Your task to perform on an android device: toggle data saver in the chrome app Image 0: 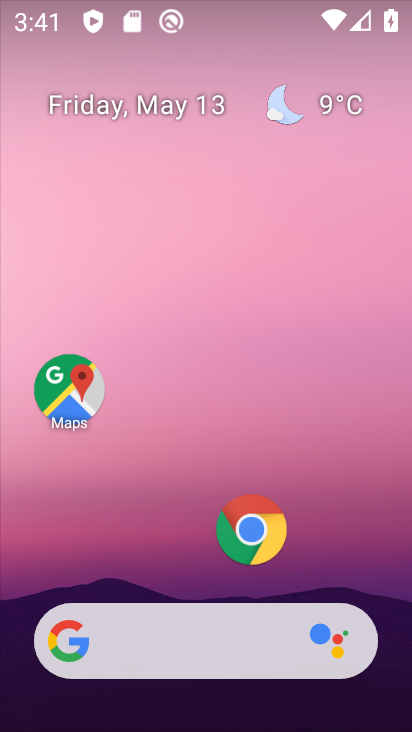
Step 0: press home button
Your task to perform on an android device: toggle data saver in the chrome app Image 1: 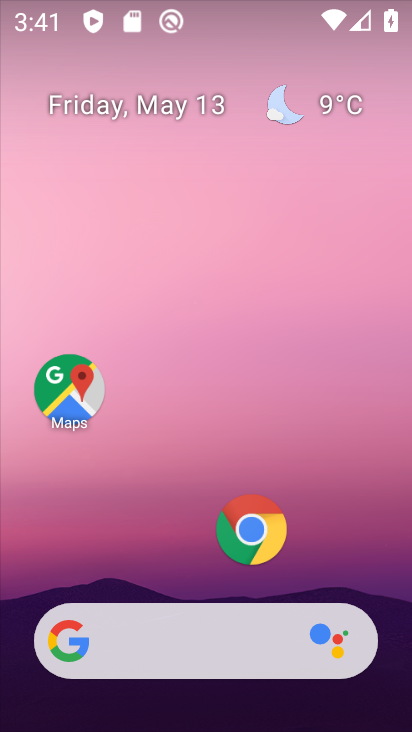
Step 1: click (249, 529)
Your task to perform on an android device: toggle data saver in the chrome app Image 2: 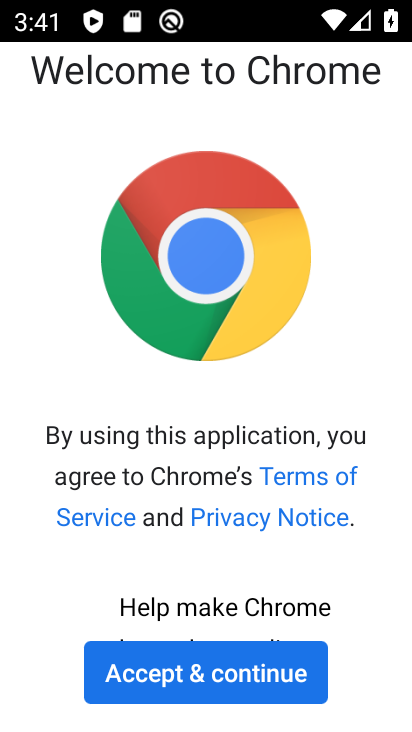
Step 2: click (194, 665)
Your task to perform on an android device: toggle data saver in the chrome app Image 3: 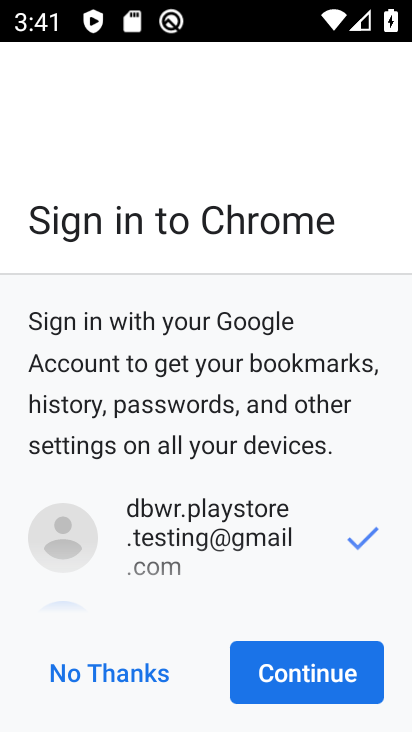
Step 3: click (311, 673)
Your task to perform on an android device: toggle data saver in the chrome app Image 4: 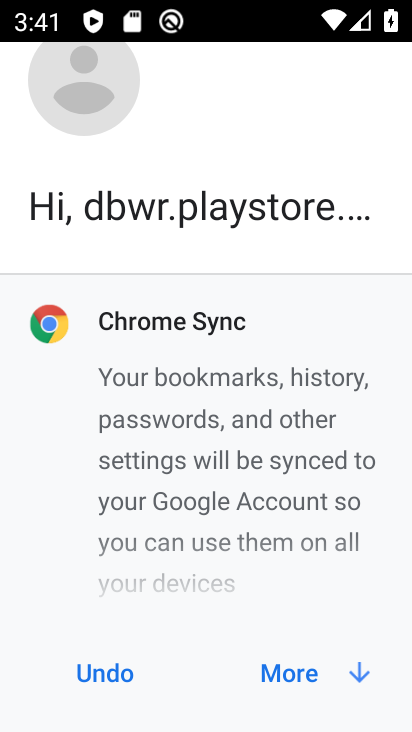
Step 4: click (311, 673)
Your task to perform on an android device: toggle data saver in the chrome app Image 5: 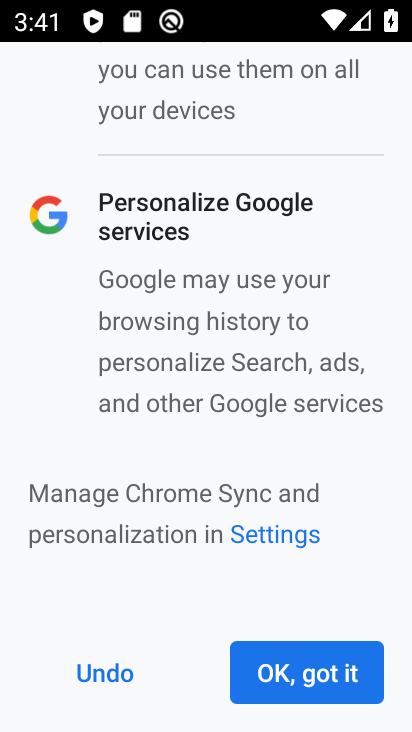
Step 5: click (311, 673)
Your task to perform on an android device: toggle data saver in the chrome app Image 6: 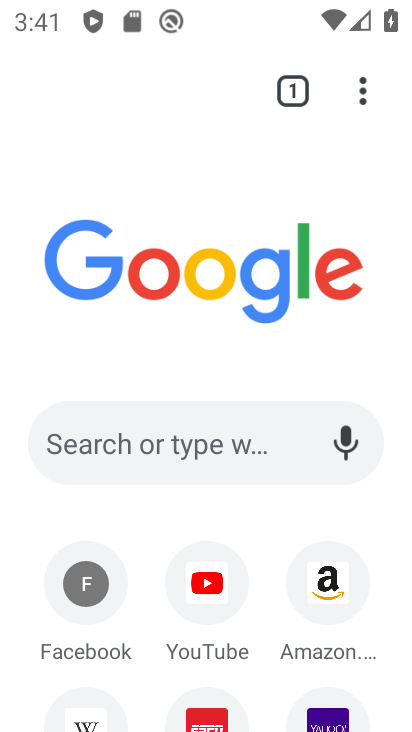
Step 6: click (361, 91)
Your task to perform on an android device: toggle data saver in the chrome app Image 7: 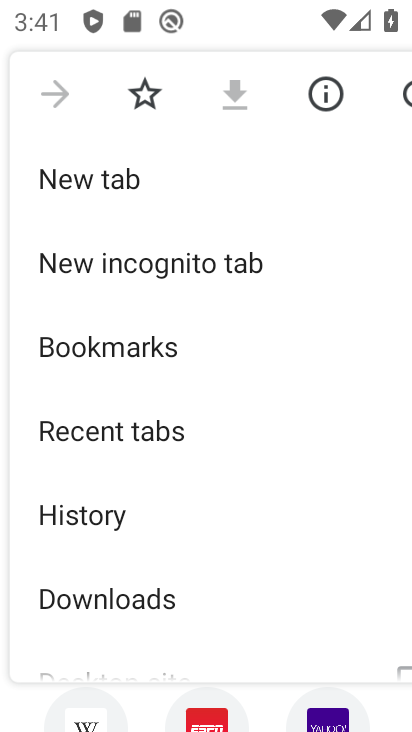
Step 7: drag from (197, 583) to (204, 114)
Your task to perform on an android device: toggle data saver in the chrome app Image 8: 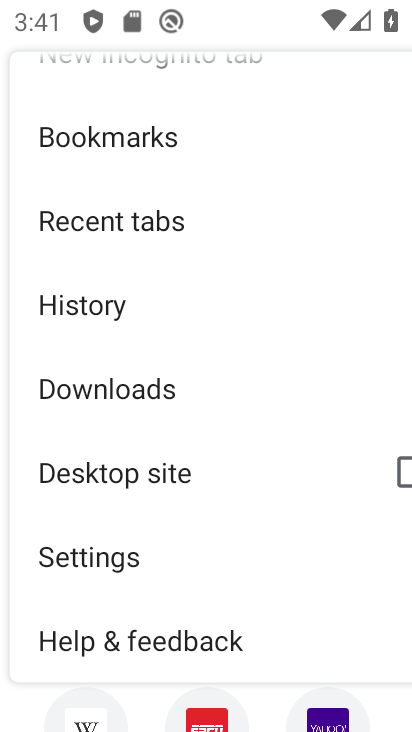
Step 8: click (151, 553)
Your task to perform on an android device: toggle data saver in the chrome app Image 9: 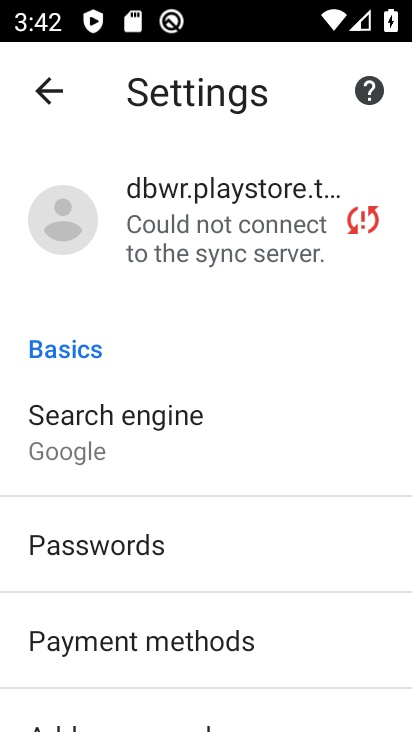
Step 9: drag from (238, 677) to (234, 163)
Your task to perform on an android device: toggle data saver in the chrome app Image 10: 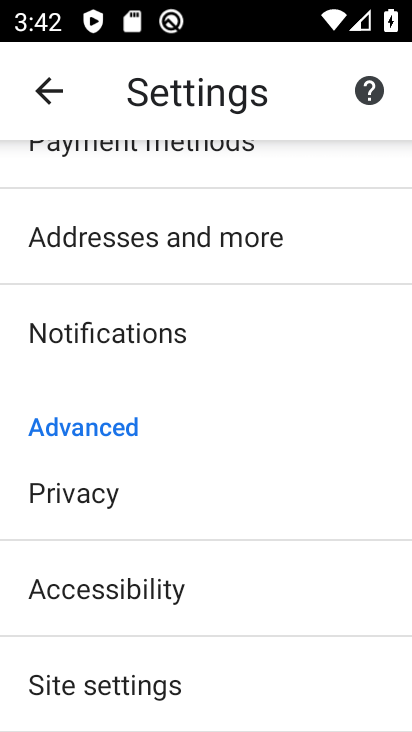
Step 10: drag from (188, 666) to (247, 225)
Your task to perform on an android device: toggle data saver in the chrome app Image 11: 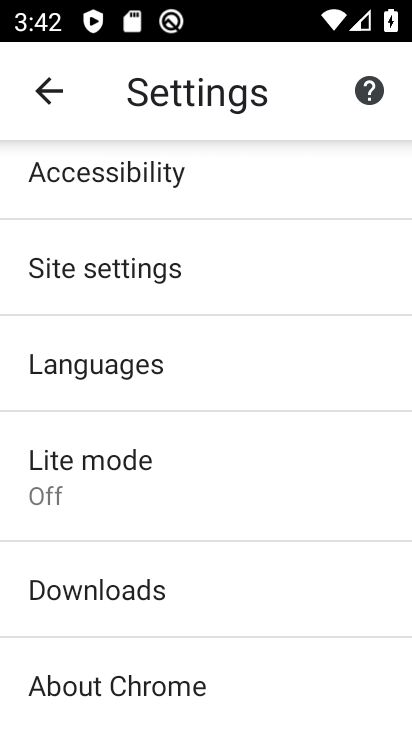
Step 11: click (124, 491)
Your task to perform on an android device: toggle data saver in the chrome app Image 12: 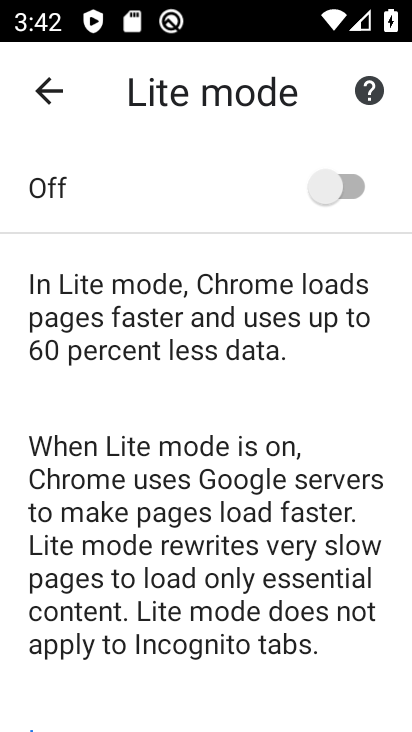
Step 12: click (356, 183)
Your task to perform on an android device: toggle data saver in the chrome app Image 13: 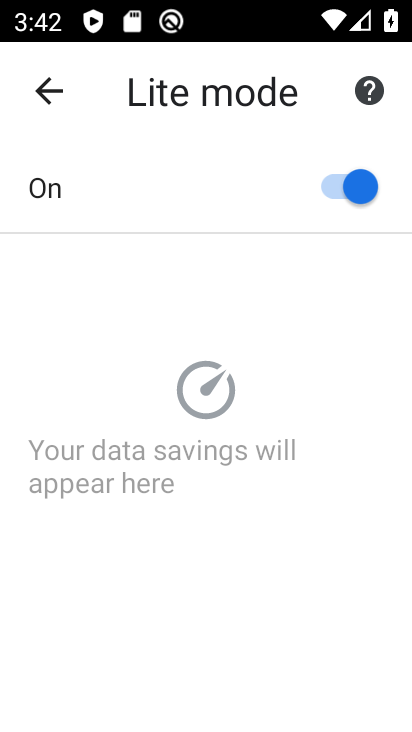
Step 13: task complete